Your task to perform on an android device: toggle javascript in the chrome app Image 0: 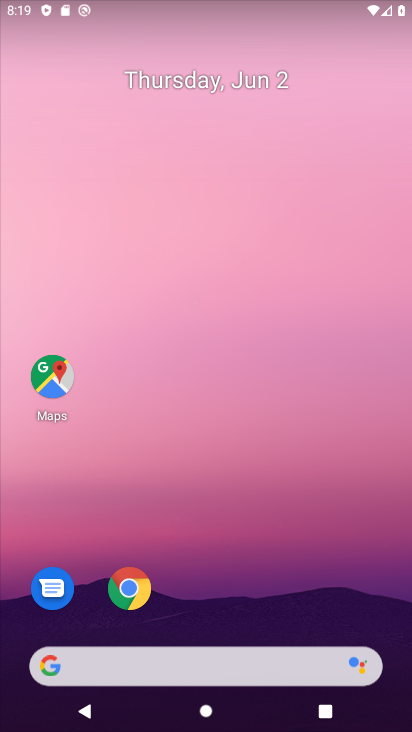
Step 0: click (125, 589)
Your task to perform on an android device: toggle javascript in the chrome app Image 1: 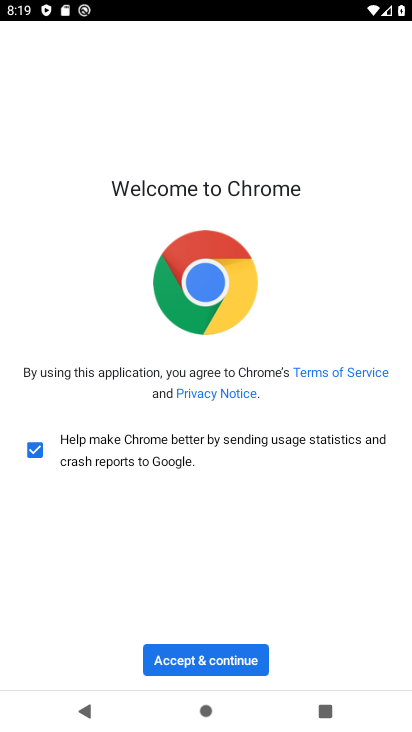
Step 1: click (222, 675)
Your task to perform on an android device: toggle javascript in the chrome app Image 2: 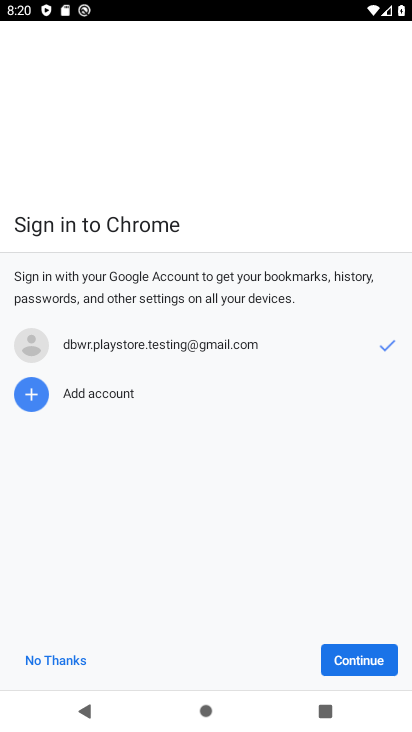
Step 2: click (349, 665)
Your task to perform on an android device: toggle javascript in the chrome app Image 3: 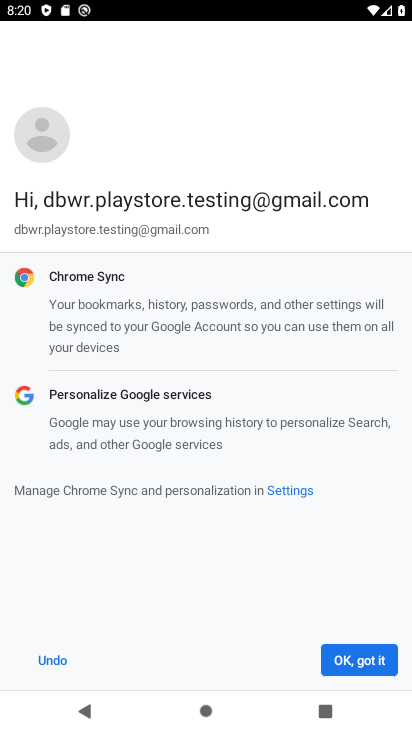
Step 3: click (362, 661)
Your task to perform on an android device: toggle javascript in the chrome app Image 4: 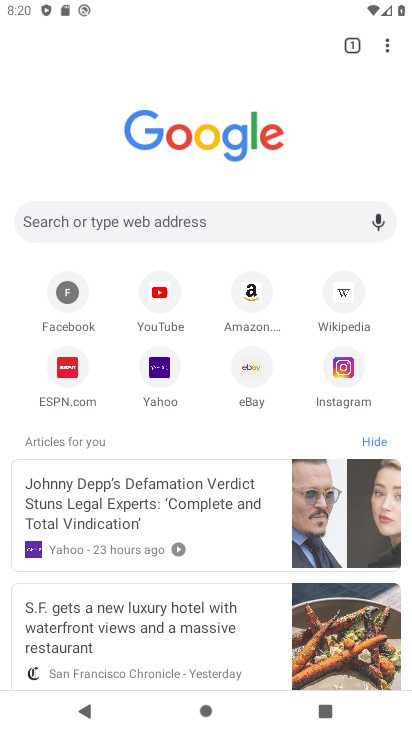
Step 4: click (383, 46)
Your task to perform on an android device: toggle javascript in the chrome app Image 5: 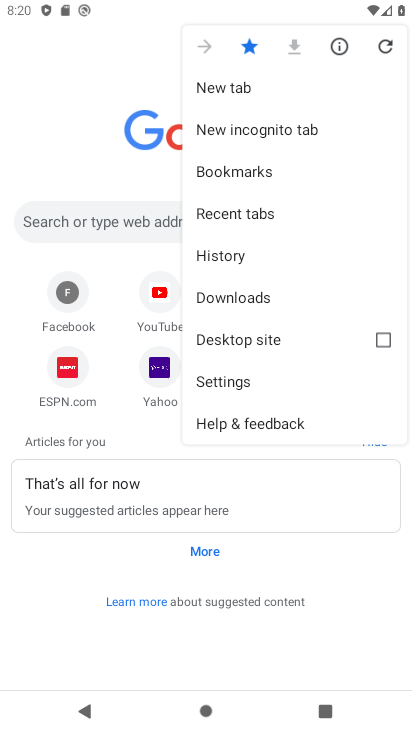
Step 5: click (248, 390)
Your task to perform on an android device: toggle javascript in the chrome app Image 6: 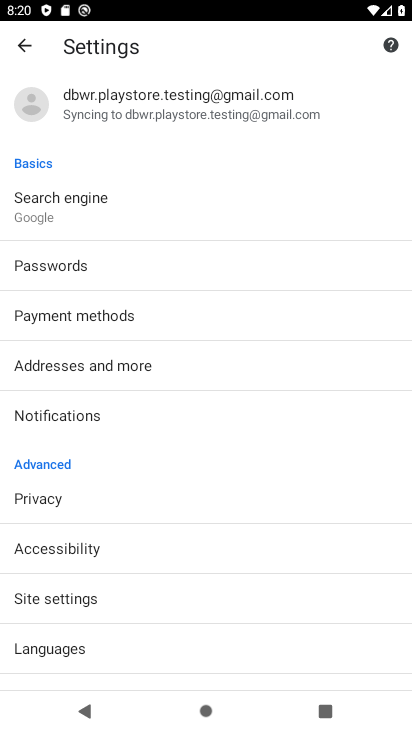
Step 6: click (180, 601)
Your task to perform on an android device: toggle javascript in the chrome app Image 7: 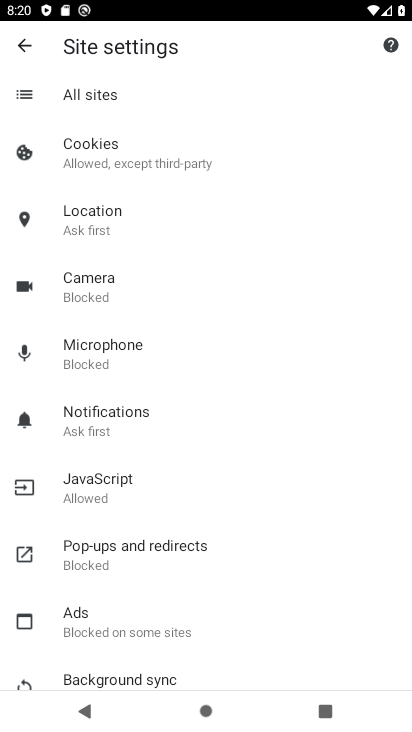
Step 7: click (163, 488)
Your task to perform on an android device: toggle javascript in the chrome app Image 8: 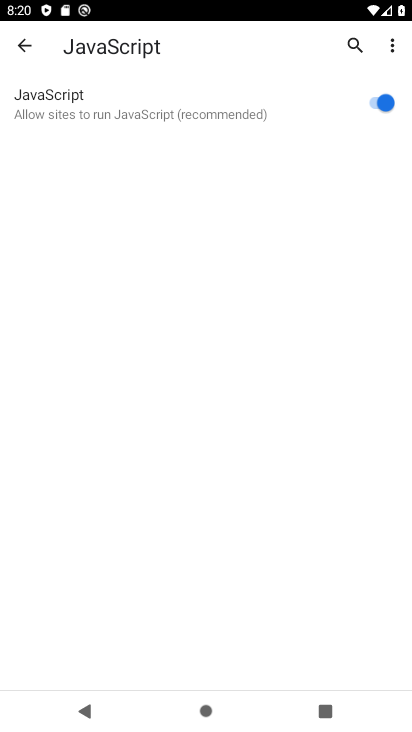
Step 8: click (369, 101)
Your task to perform on an android device: toggle javascript in the chrome app Image 9: 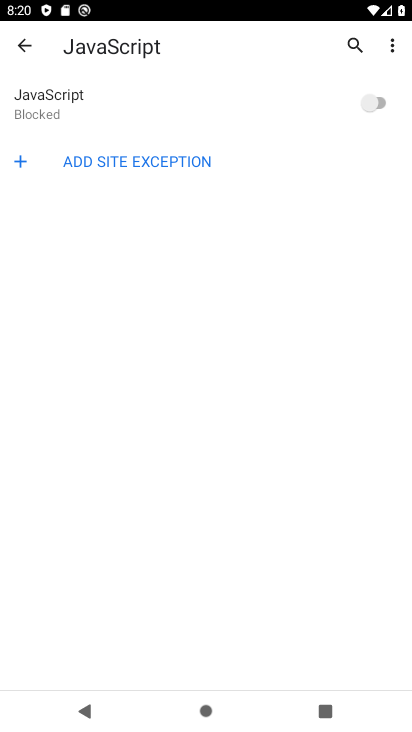
Step 9: task complete